Your task to perform on an android device: Search for seafood restaurants on Google Maps Image 0: 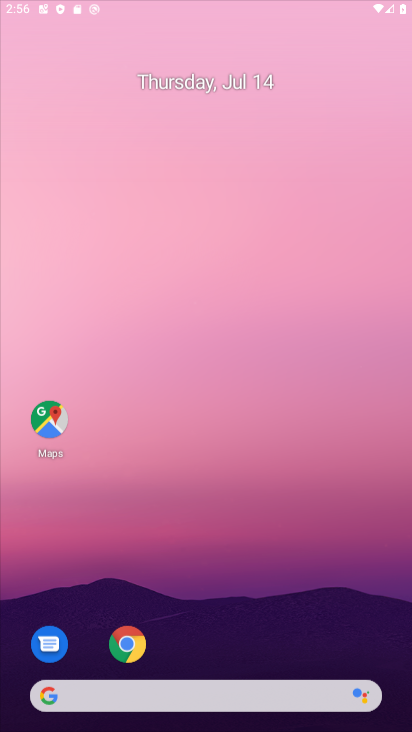
Step 0: click (335, 38)
Your task to perform on an android device: Search for seafood restaurants on Google Maps Image 1: 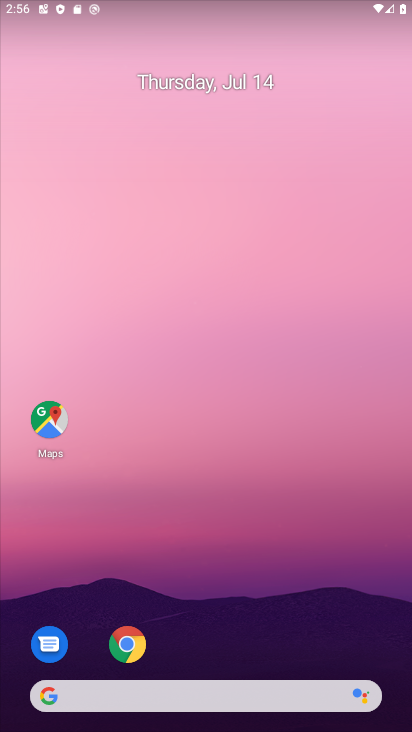
Step 1: drag from (270, 688) to (335, 131)
Your task to perform on an android device: Search for seafood restaurants on Google Maps Image 2: 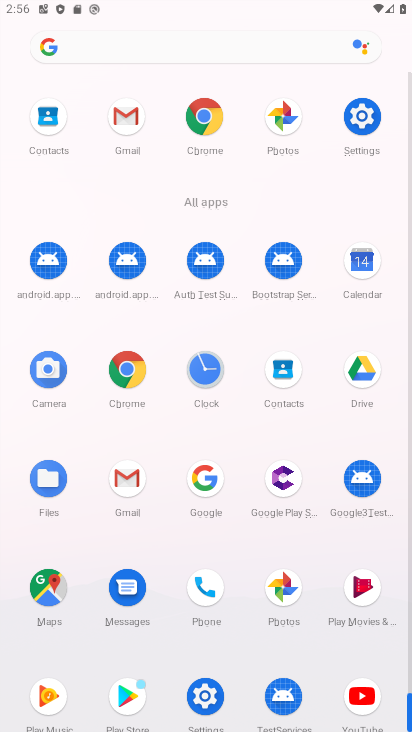
Step 2: click (277, 590)
Your task to perform on an android device: Search for seafood restaurants on Google Maps Image 3: 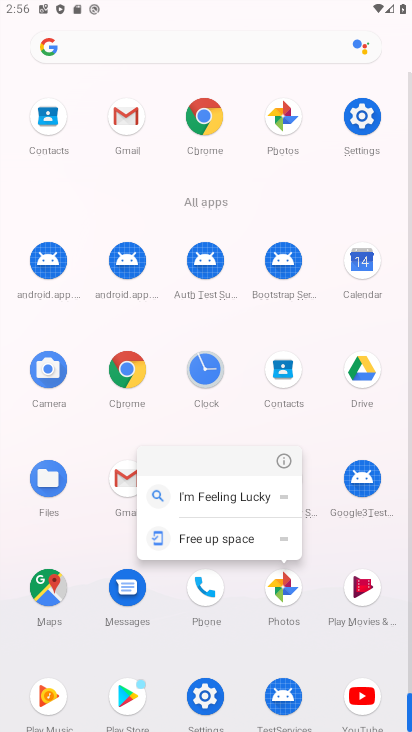
Step 3: click (37, 576)
Your task to perform on an android device: Search for seafood restaurants on Google Maps Image 4: 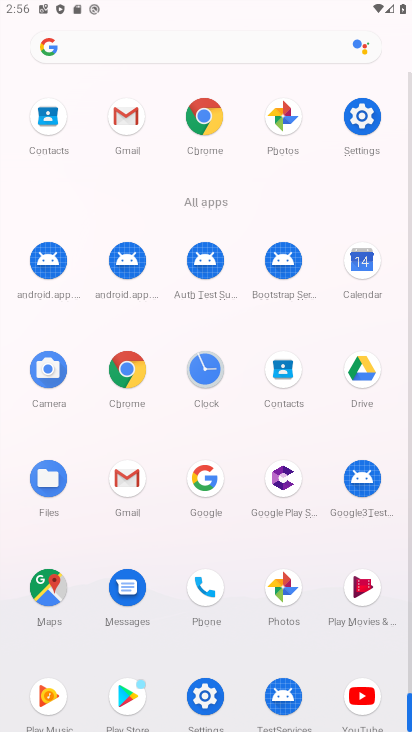
Step 4: click (37, 576)
Your task to perform on an android device: Search for seafood restaurants on Google Maps Image 5: 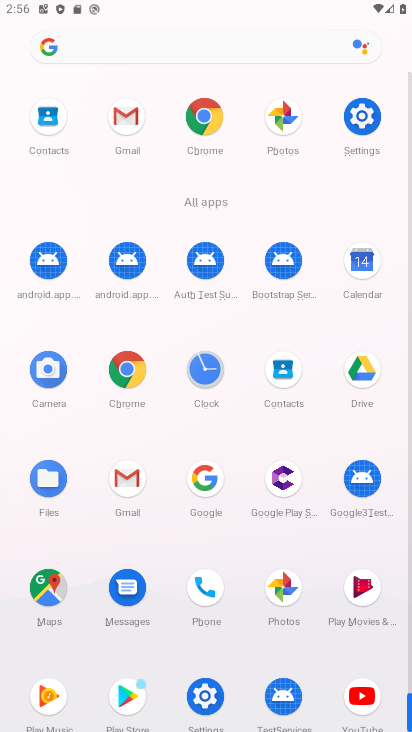
Step 5: click (37, 576)
Your task to perform on an android device: Search for seafood restaurants on Google Maps Image 6: 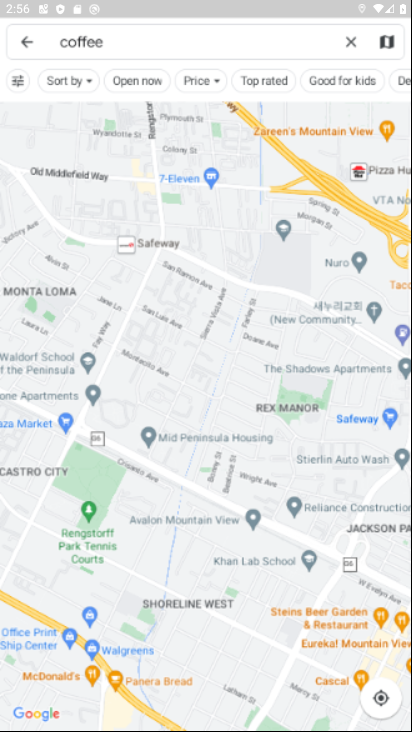
Step 6: drag from (170, 237) to (215, 551)
Your task to perform on an android device: Search for seafood restaurants on Google Maps Image 7: 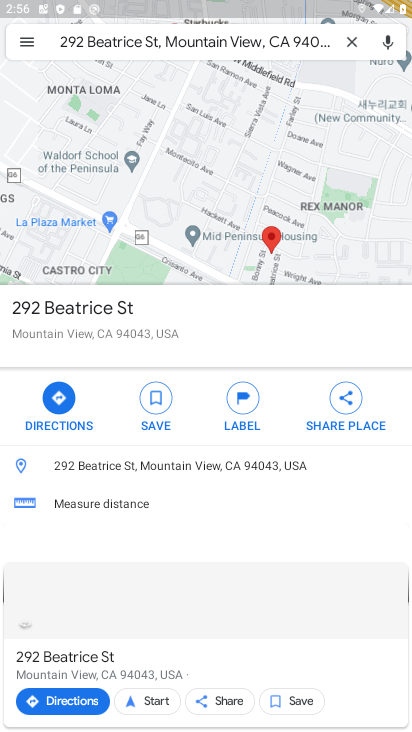
Step 7: drag from (270, 254) to (258, 585)
Your task to perform on an android device: Search for seafood restaurants on Google Maps Image 8: 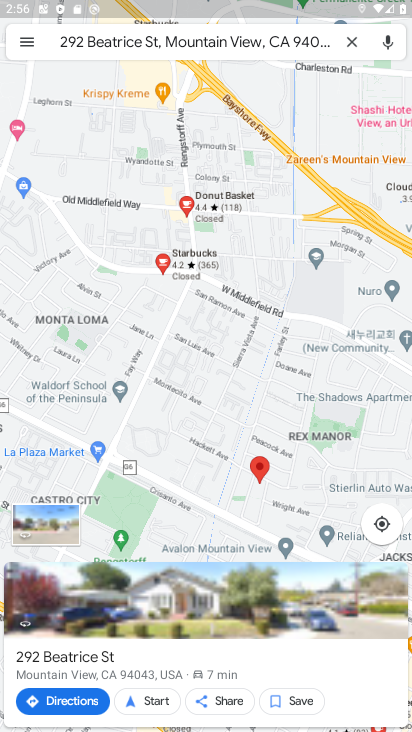
Step 8: click (349, 36)
Your task to perform on an android device: Search for seafood restaurants on Google Maps Image 9: 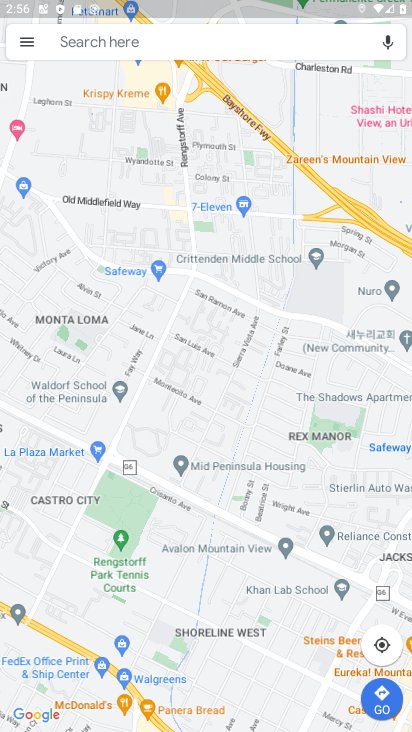
Step 9: click (120, 46)
Your task to perform on an android device: Search for seafood restaurants on Google Maps Image 10: 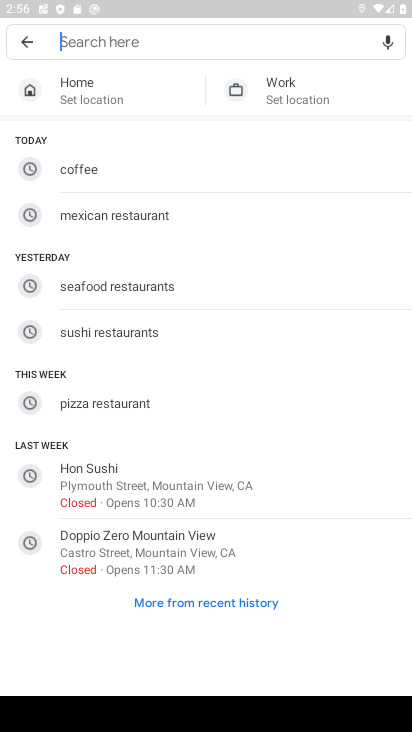
Step 10: click (121, 275)
Your task to perform on an android device: Search for seafood restaurants on Google Maps Image 11: 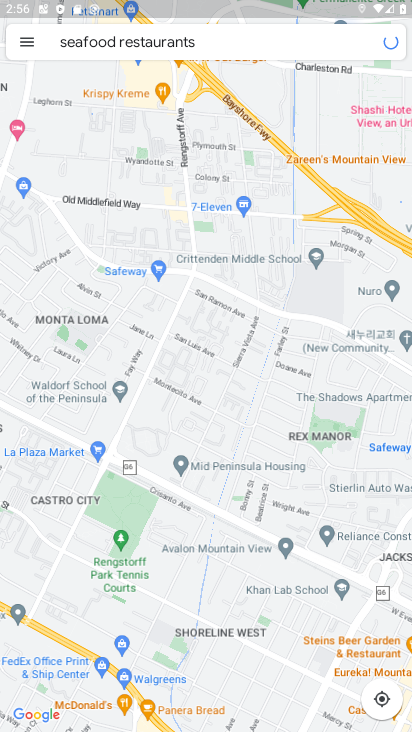
Step 11: task complete